Your task to perform on an android device: Open the stopwatch Image 0: 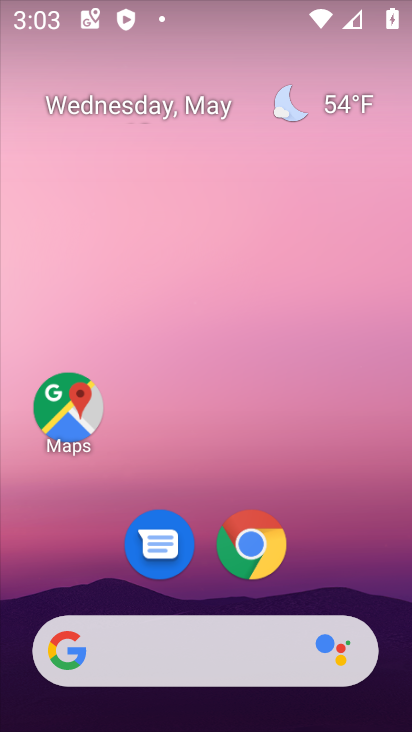
Step 0: drag from (357, 537) to (265, 13)
Your task to perform on an android device: Open the stopwatch Image 1: 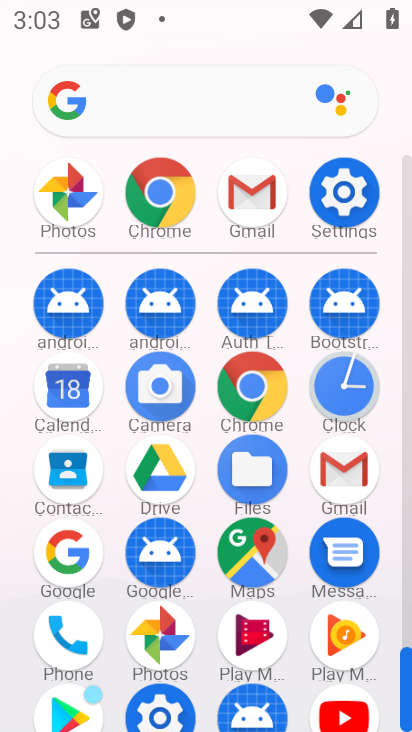
Step 1: click (359, 400)
Your task to perform on an android device: Open the stopwatch Image 2: 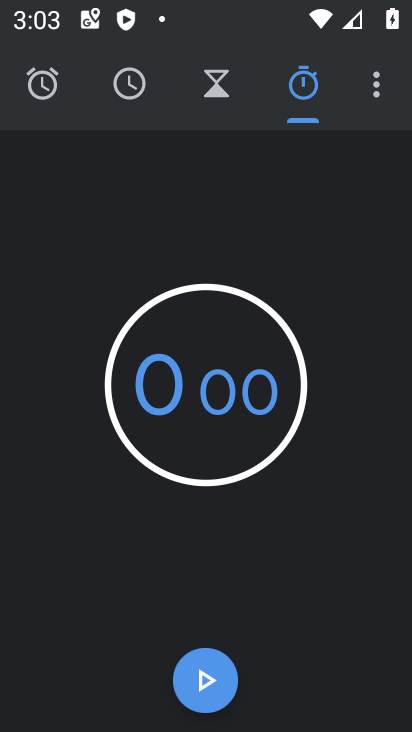
Step 2: task complete